Your task to perform on an android device: Go to settings Image 0: 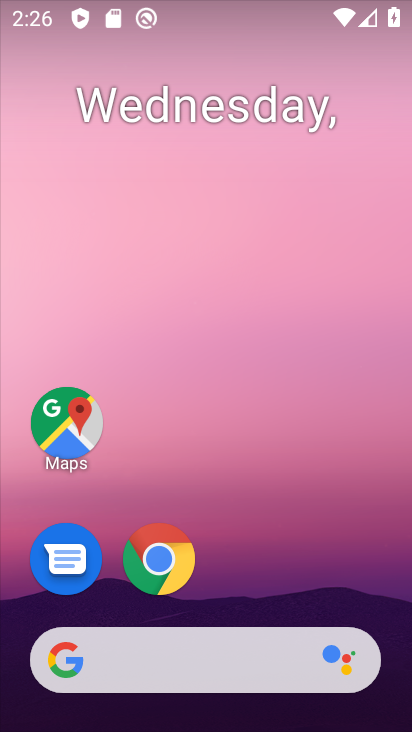
Step 0: drag from (216, 556) to (258, 43)
Your task to perform on an android device: Go to settings Image 1: 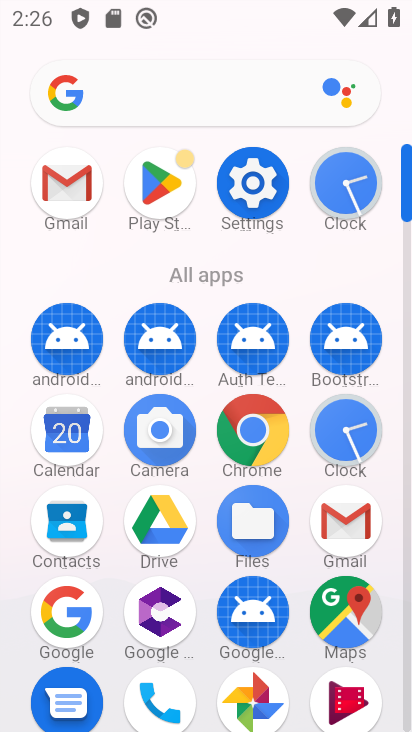
Step 1: click (264, 183)
Your task to perform on an android device: Go to settings Image 2: 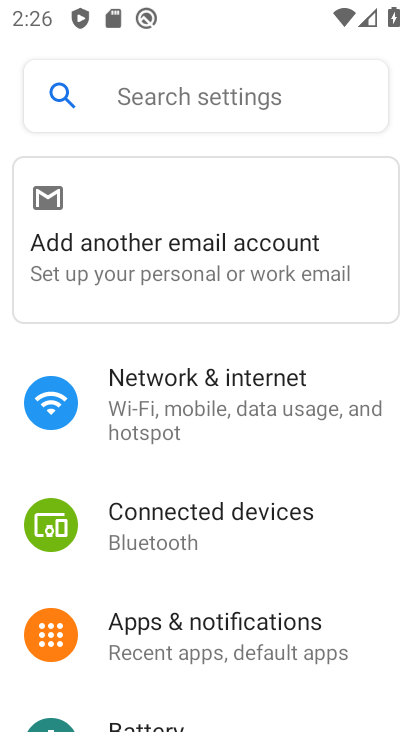
Step 2: task complete